Your task to perform on an android device: Go to ESPN.com Image 0: 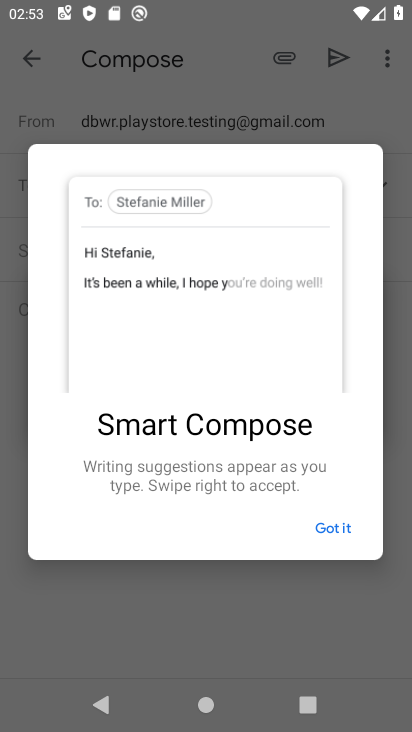
Step 0: press home button
Your task to perform on an android device: Go to ESPN.com Image 1: 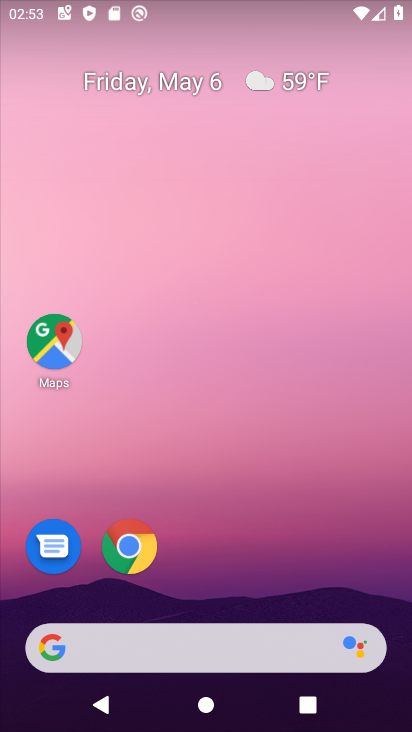
Step 1: click (143, 543)
Your task to perform on an android device: Go to ESPN.com Image 2: 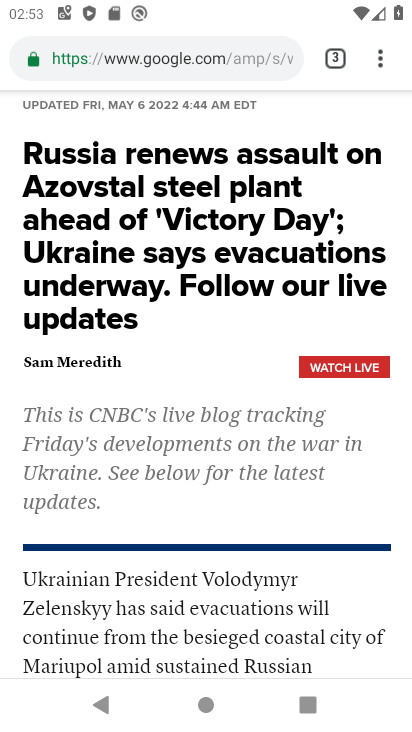
Step 2: click (340, 60)
Your task to perform on an android device: Go to ESPN.com Image 3: 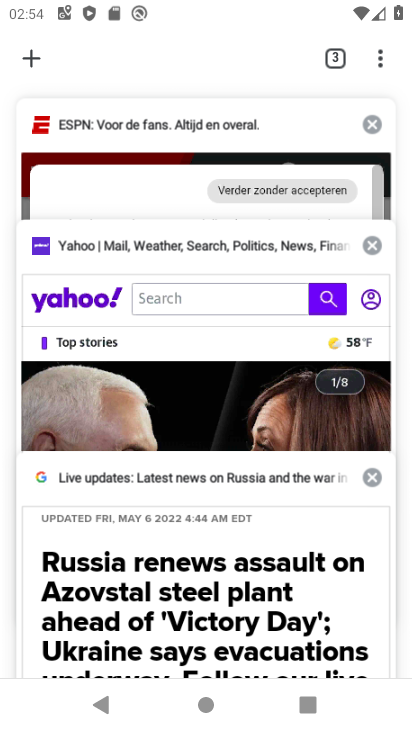
Step 3: click (106, 121)
Your task to perform on an android device: Go to ESPN.com Image 4: 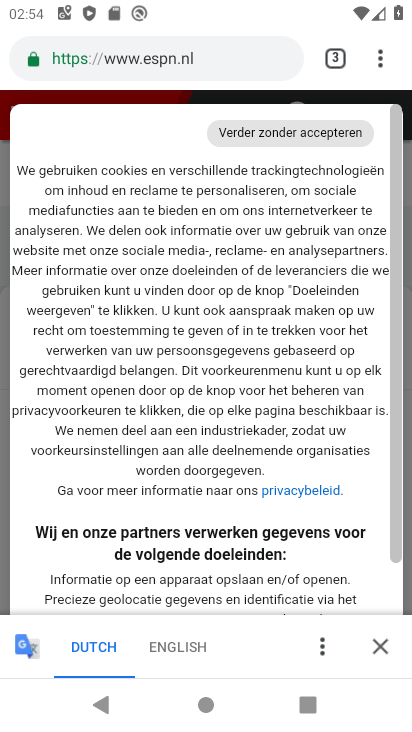
Step 4: task complete